Your task to perform on an android device: Go to internet settings Image 0: 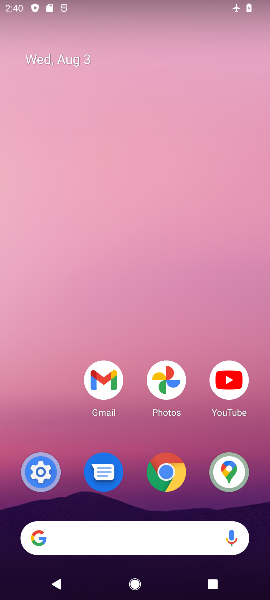
Step 0: drag from (205, 448) to (150, 47)
Your task to perform on an android device: Go to internet settings Image 1: 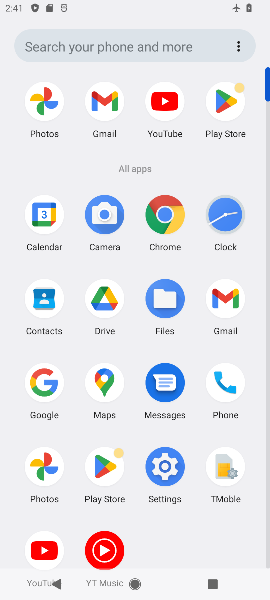
Step 1: click (163, 477)
Your task to perform on an android device: Go to internet settings Image 2: 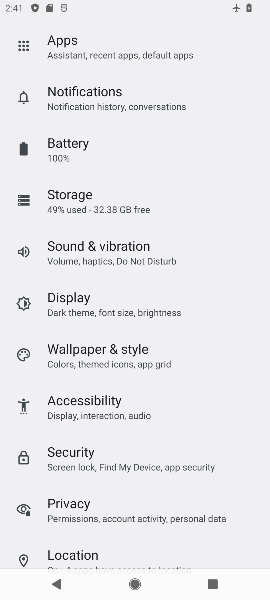
Step 2: drag from (160, 143) to (155, 542)
Your task to perform on an android device: Go to internet settings Image 3: 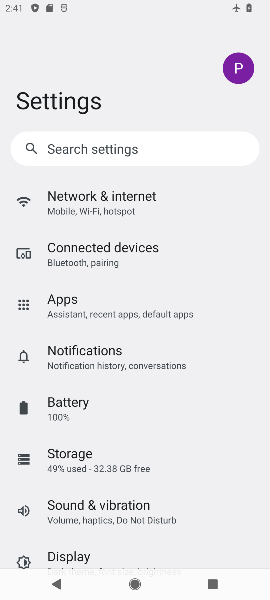
Step 3: click (113, 205)
Your task to perform on an android device: Go to internet settings Image 4: 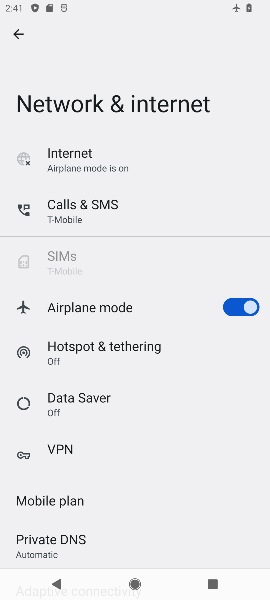
Step 4: click (108, 160)
Your task to perform on an android device: Go to internet settings Image 5: 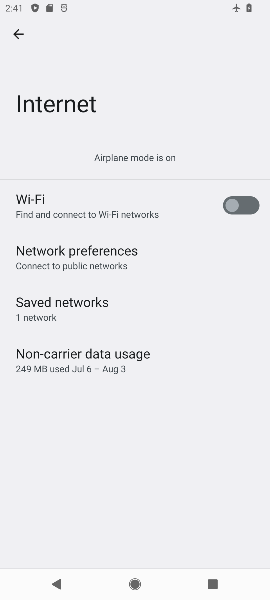
Step 5: task complete